Your task to perform on an android device: turn off wifi Image 0: 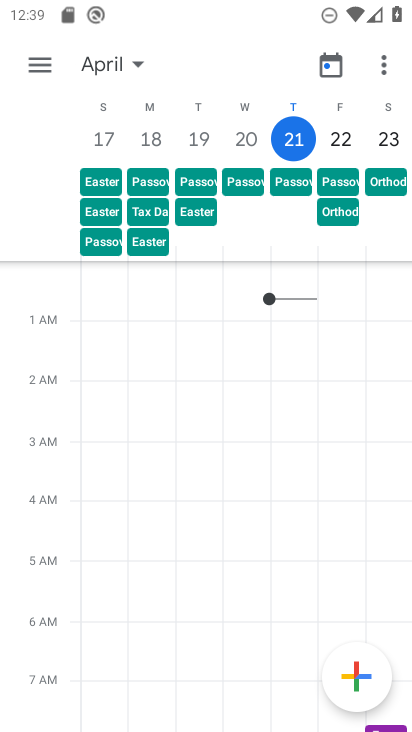
Step 0: press home button
Your task to perform on an android device: turn off wifi Image 1: 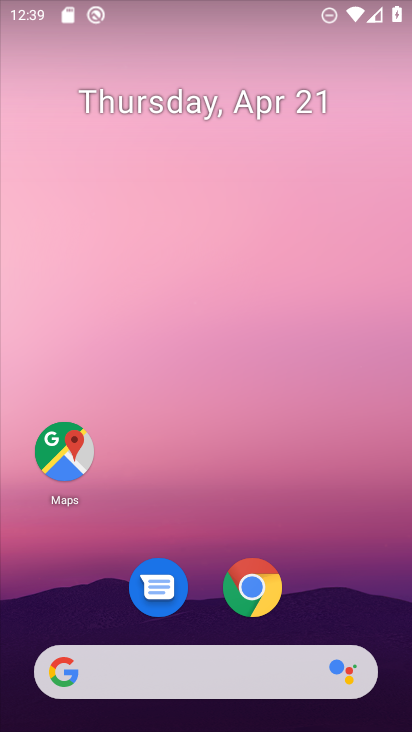
Step 1: drag from (207, 608) to (177, 9)
Your task to perform on an android device: turn off wifi Image 2: 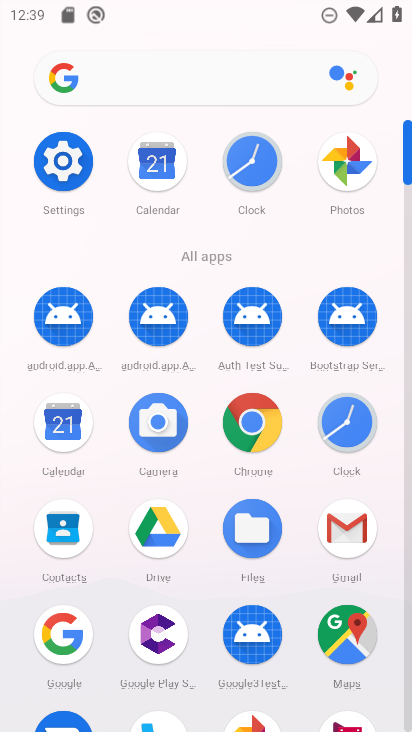
Step 2: click (66, 165)
Your task to perform on an android device: turn off wifi Image 3: 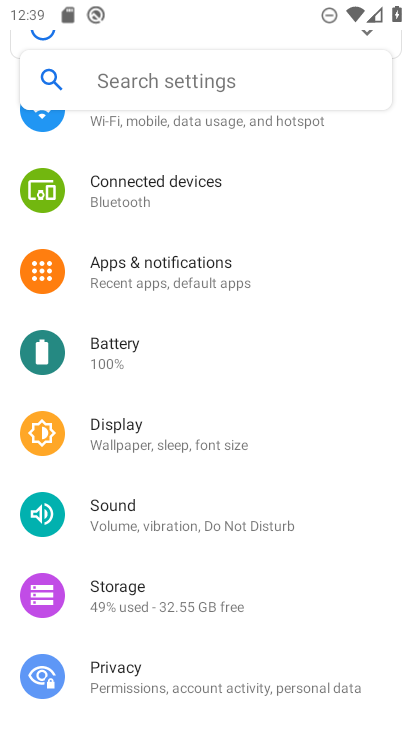
Step 3: drag from (275, 361) to (264, 647)
Your task to perform on an android device: turn off wifi Image 4: 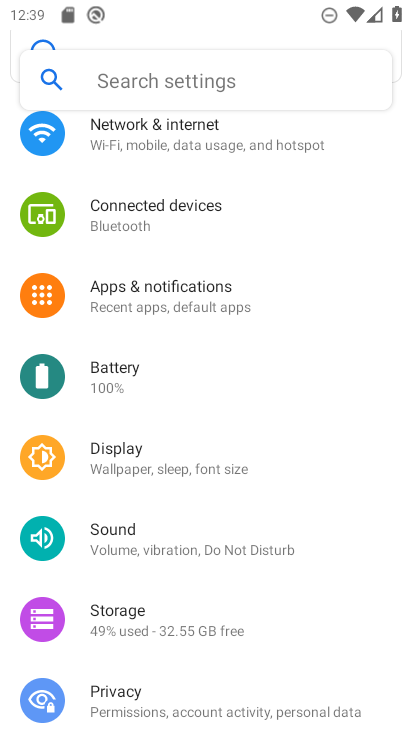
Step 4: click (128, 131)
Your task to perform on an android device: turn off wifi Image 5: 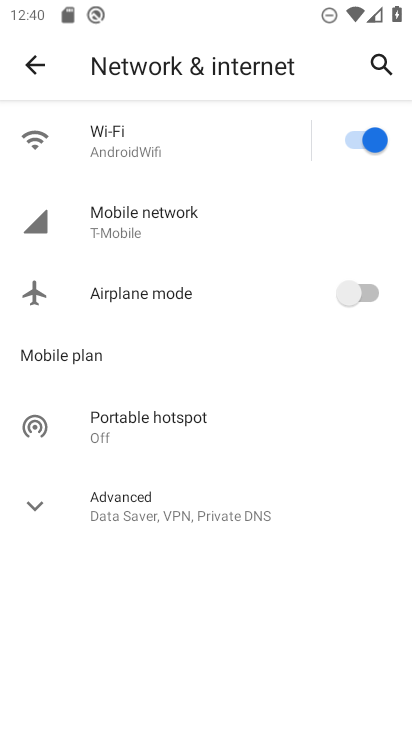
Step 5: click (362, 141)
Your task to perform on an android device: turn off wifi Image 6: 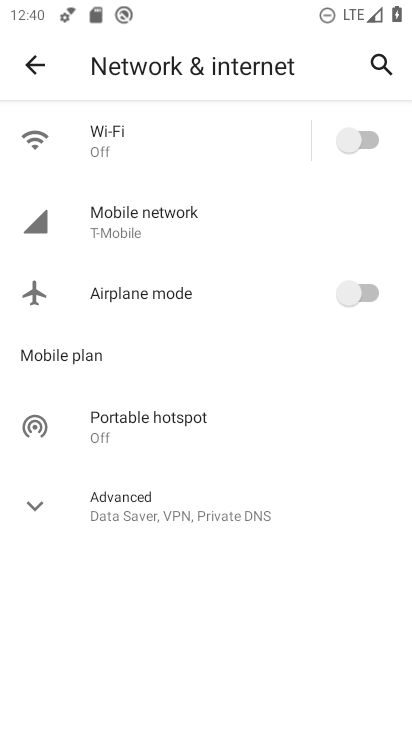
Step 6: task complete